Your task to perform on an android device: What's on my calendar tomorrow? Image 0: 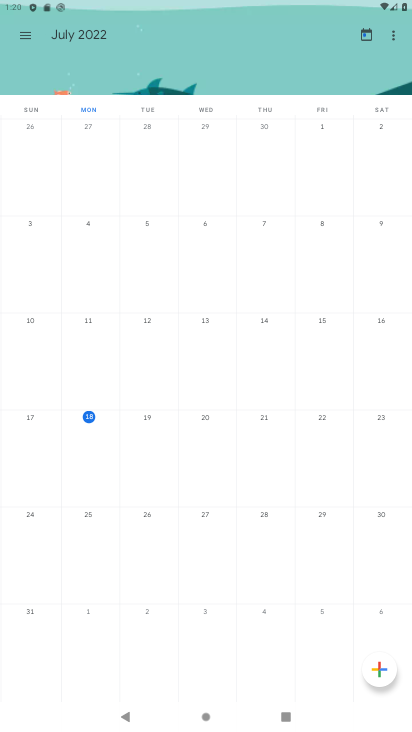
Step 0: task complete